Your task to perform on an android device: Open the calendar app, open the side menu, and click the "Day" option Image 0: 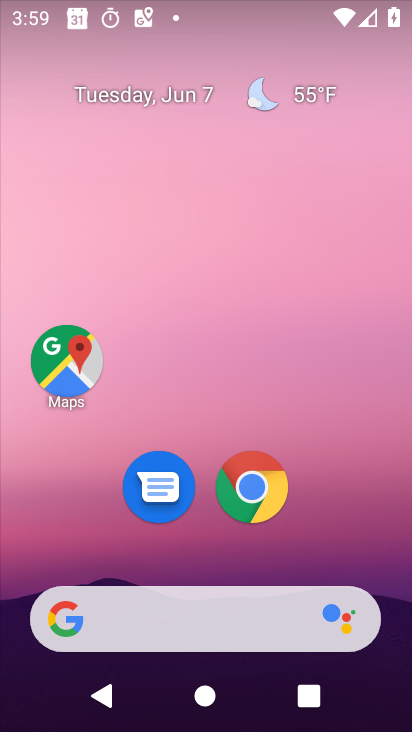
Step 0: drag from (302, 417) to (303, 36)
Your task to perform on an android device: Open the calendar app, open the side menu, and click the "Day" option Image 1: 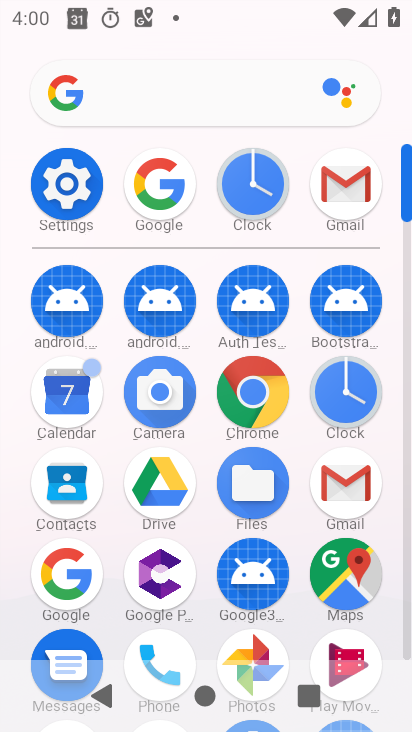
Step 1: click (67, 392)
Your task to perform on an android device: Open the calendar app, open the side menu, and click the "Day" option Image 2: 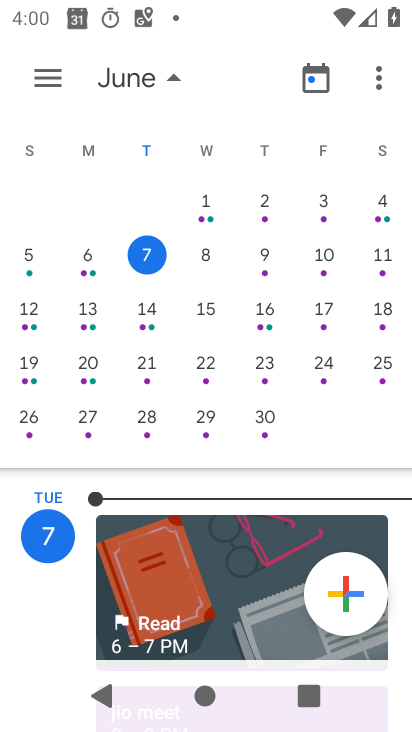
Step 2: click (47, 79)
Your task to perform on an android device: Open the calendar app, open the side menu, and click the "Day" option Image 3: 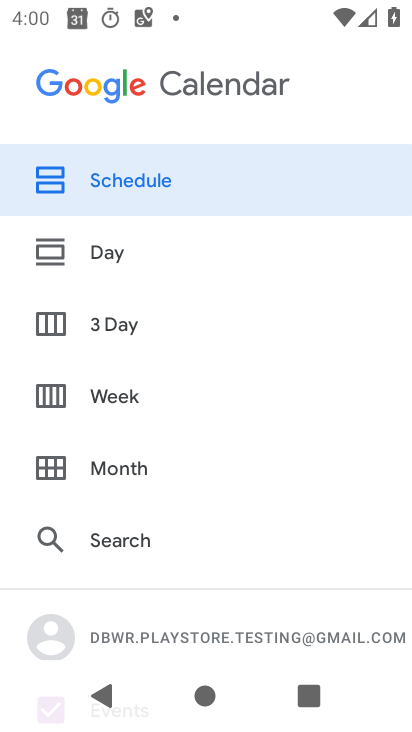
Step 3: click (143, 249)
Your task to perform on an android device: Open the calendar app, open the side menu, and click the "Day" option Image 4: 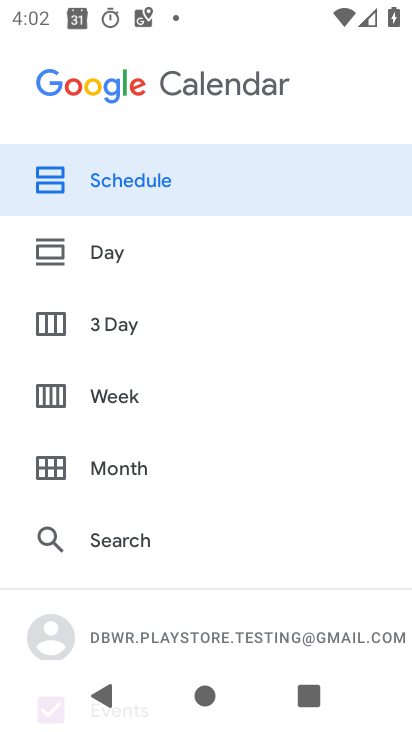
Step 4: task complete